Your task to perform on an android device: turn off notifications settings in the gmail app Image 0: 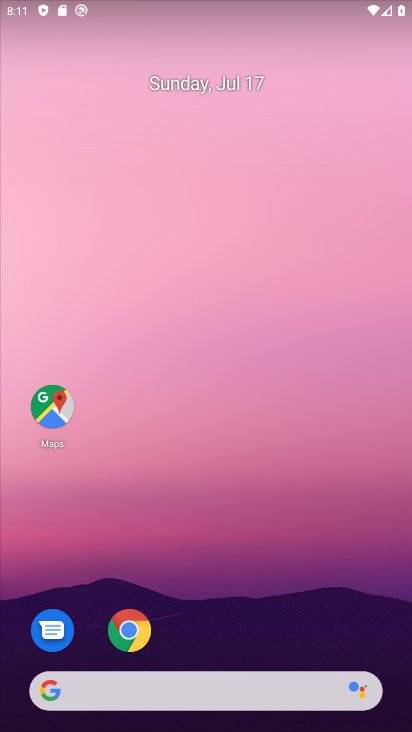
Step 0: drag from (357, 611) to (376, 99)
Your task to perform on an android device: turn off notifications settings in the gmail app Image 1: 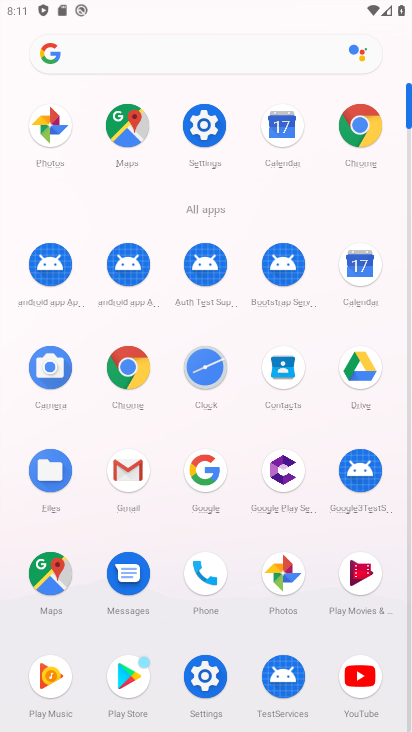
Step 1: click (131, 467)
Your task to perform on an android device: turn off notifications settings in the gmail app Image 2: 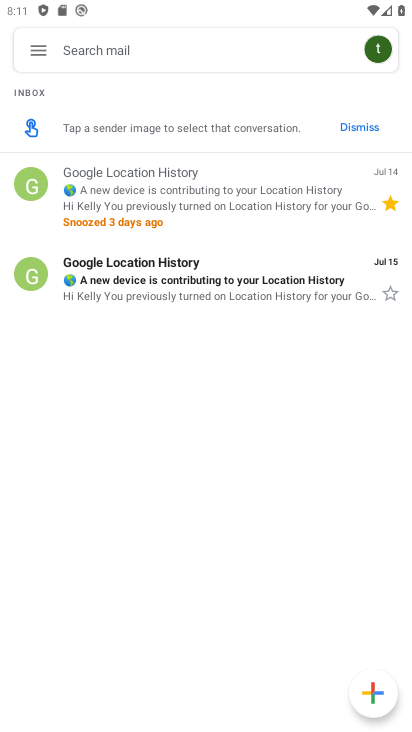
Step 2: click (38, 53)
Your task to perform on an android device: turn off notifications settings in the gmail app Image 3: 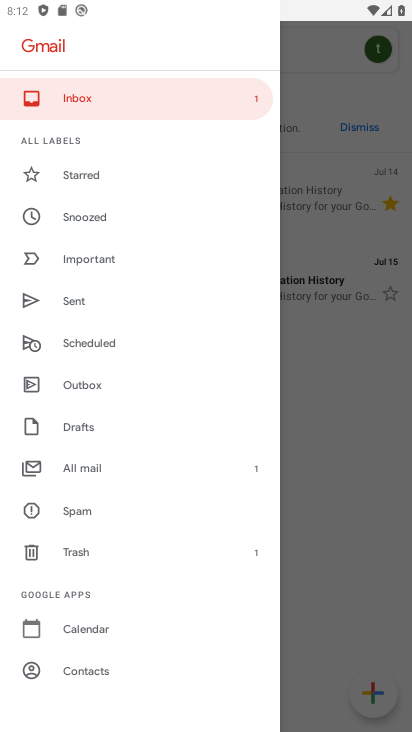
Step 3: drag from (209, 379) to (215, 322)
Your task to perform on an android device: turn off notifications settings in the gmail app Image 4: 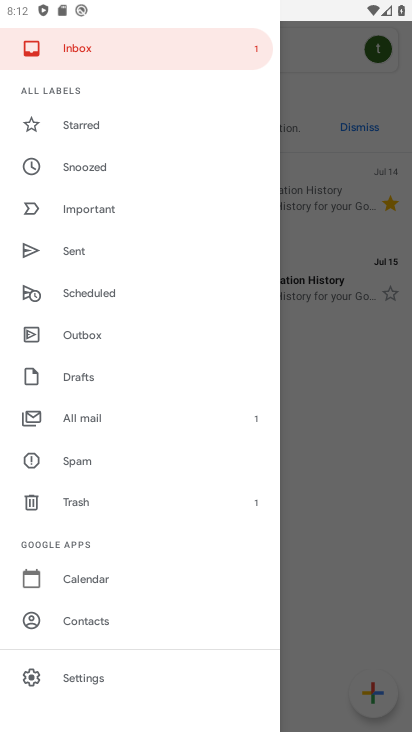
Step 4: drag from (222, 448) to (214, 318)
Your task to perform on an android device: turn off notifications settings in the gmail app Image 5: 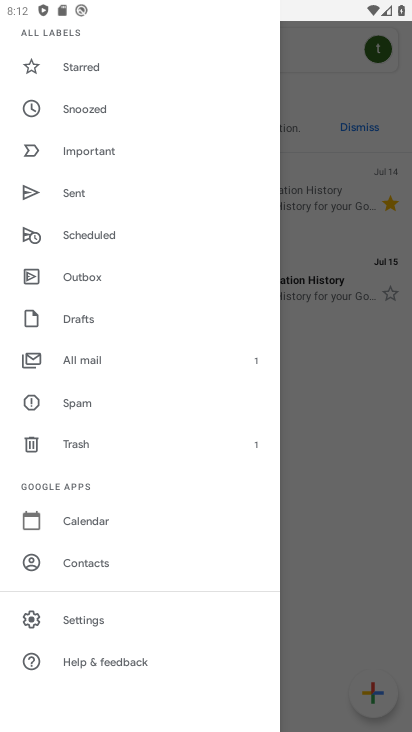
Step 5: click (123, 617)
Your task to perform on an android device: turn off notifications settings in the gmail app Image 6: 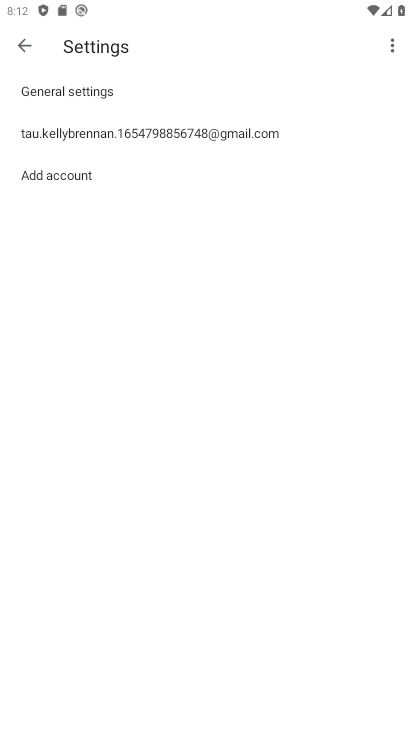
Step 6: click (277, 126)
Your task to perform on an android device: turn off notifications settings in the gmail app Image 7: 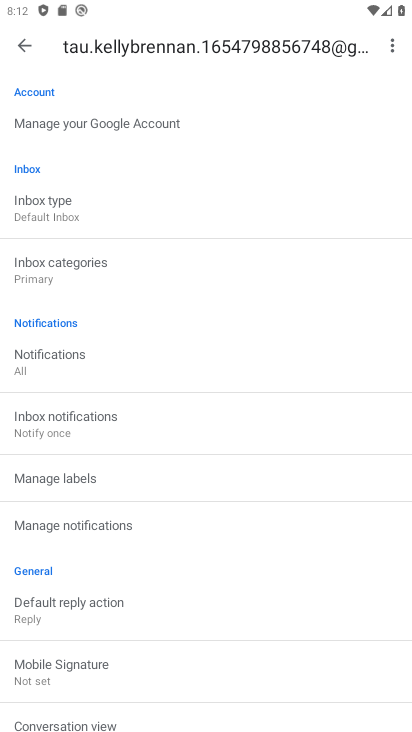
Step 7: drag from (275, 398) to (279, 333)
Your task to perform on an android device: turn off notifications settings in the gmail app Image 8: 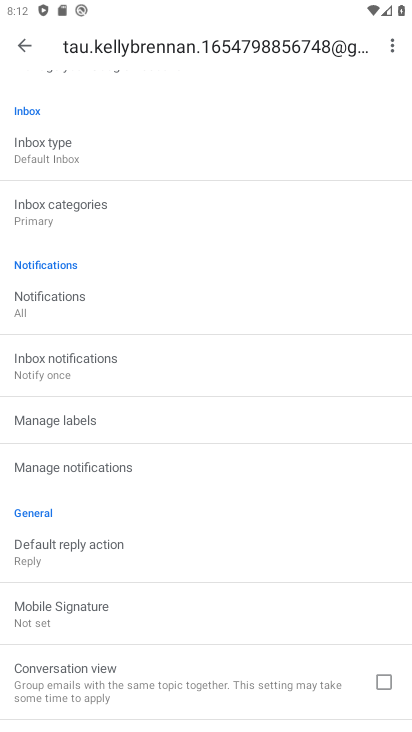
Step 8: drag from (293, 428) to (290, 357)
Your task to perform on an android device: turn off notifications settings in the gmail app Image 9: 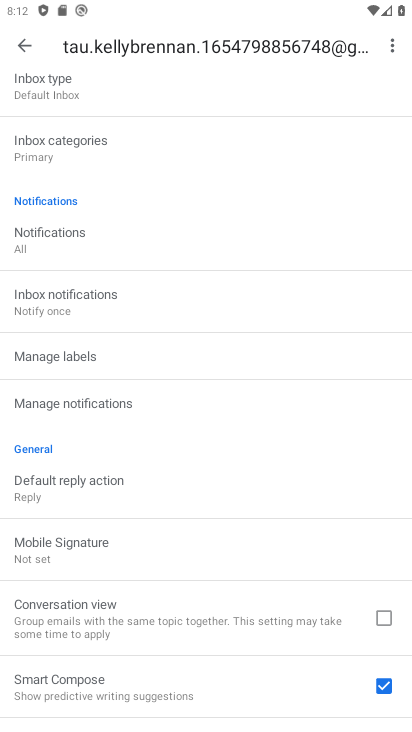
Step 9: drag from (294, 444) to (298, 370)
Your task to perform on an android device: turn off notifications settings in the gmail app Image 10: 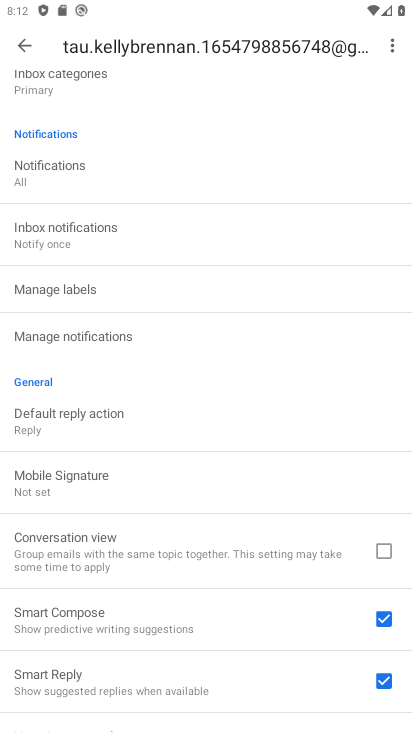
Step 10: drag from (288, 458) to (277, 360)
Your task to perform on an android device: turn off notifications settings in the gmail app Image 11: 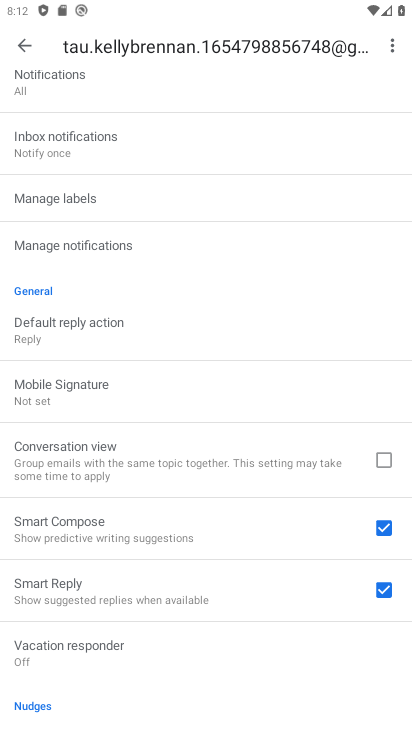
Step 11: drag from (266, 486) to (260, 407)
Your task to perform on an android device: turn off notifications settings in the gmail app Image 12: 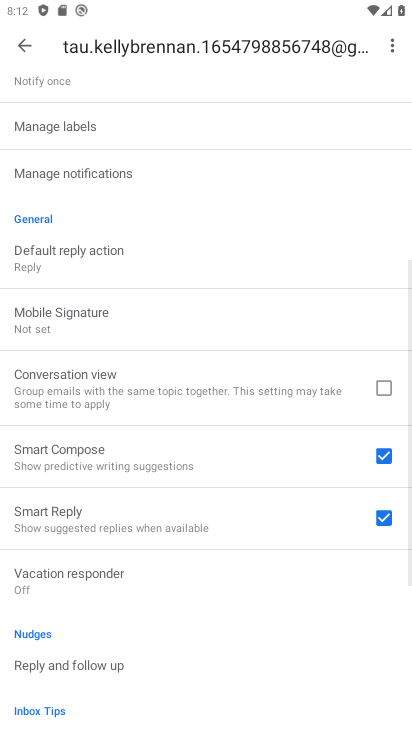
Step 12: drag from (267, 505) to (267, 404)
Your task to perform on an android device: turn off notifications settings in the gmail app Image 13: 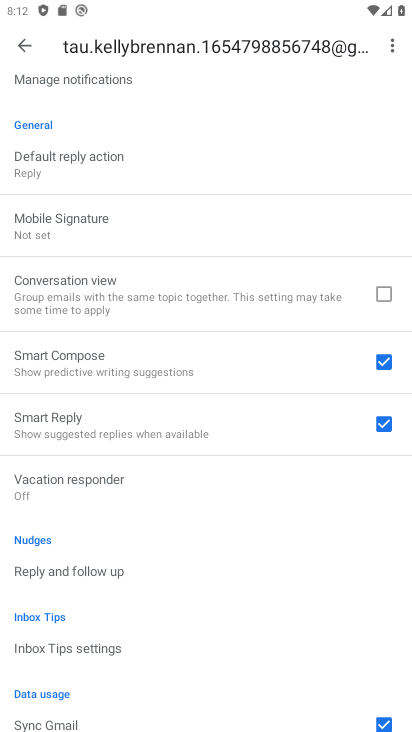
Step 13: drag from (260, 511) to (248, 383)
Your task to perform on an android device: turn off notifications settings in the gmail app Image 14: 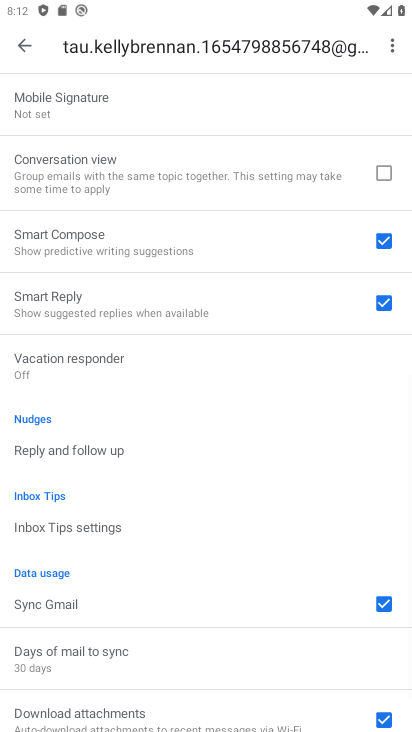
Step 14: drag from (262, 510) to (255, 391)
Your task to perform on an android device: turn off notifications settings in the gmail app Image 15: 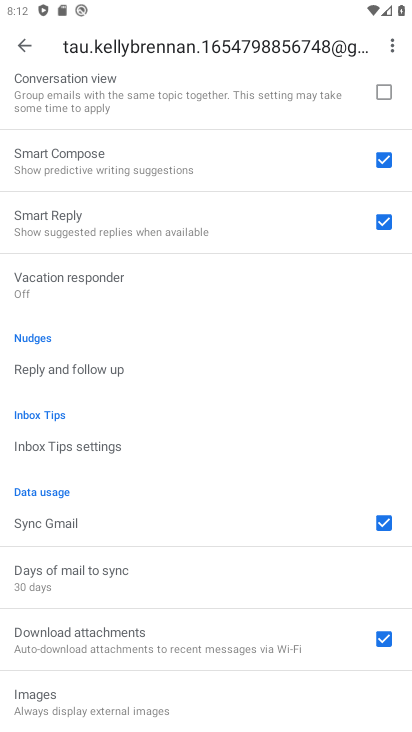
Step 15: drag from (275, 287) to (271, 388)
Your task to perform on an android device: turn off notifications settings in the gmail app Image 16: 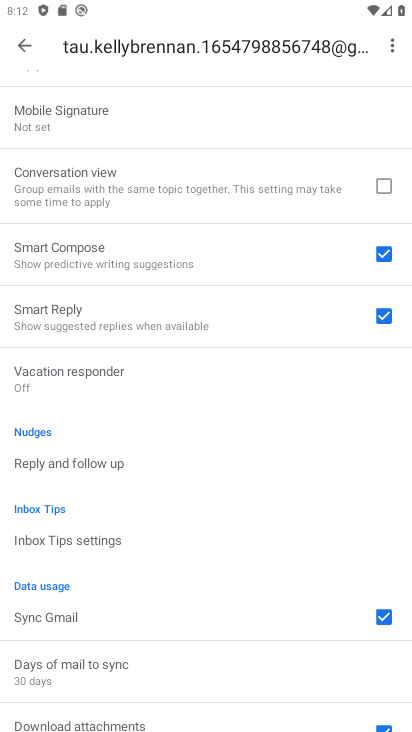
Step 16: drag from (261, 261) to (260, 353)
Your task to perform on an android device: turn off notifications settings in the gmail app Image 17: 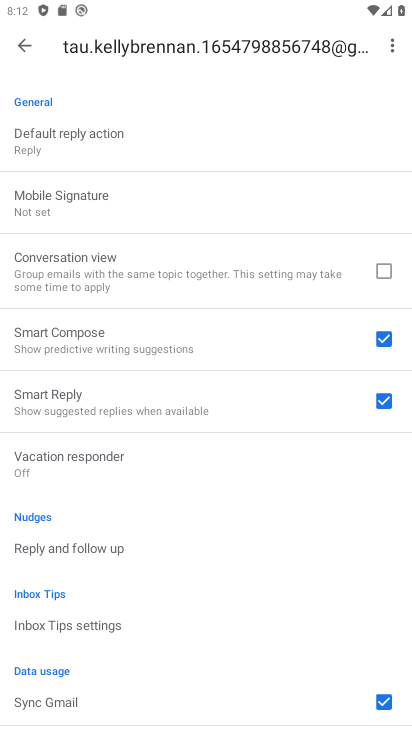
Step 17: drag from (259, 247) to (262, 337)
Your task to perform on an android device: turn off notifications settings in the gmail app Image 18: 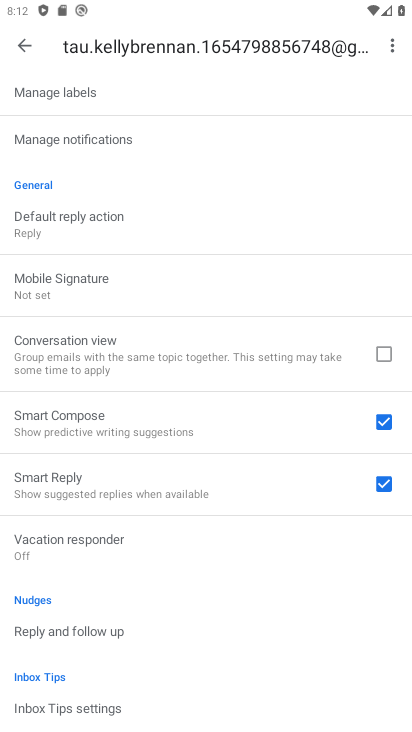
Step 18: drag from (262, 256) to (261, 343)
Your task to perform on an android device: turn off notifications settings in the gmail app Image 19: 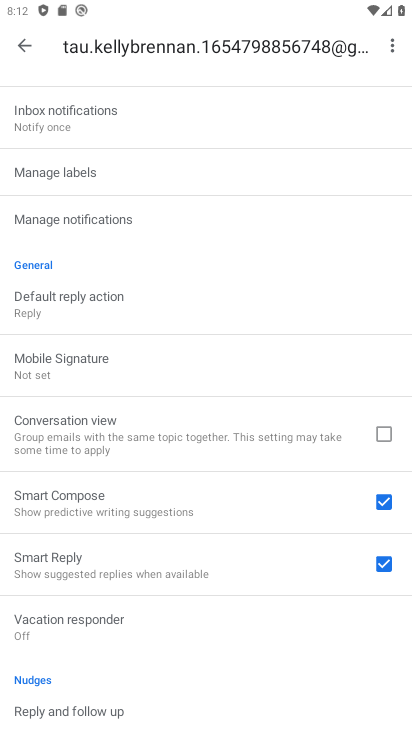
Step 19: drag from (261, 239) to (250, 396)
Your task to perform on an android device: turn off notifications settings in the gmail app Image 20: 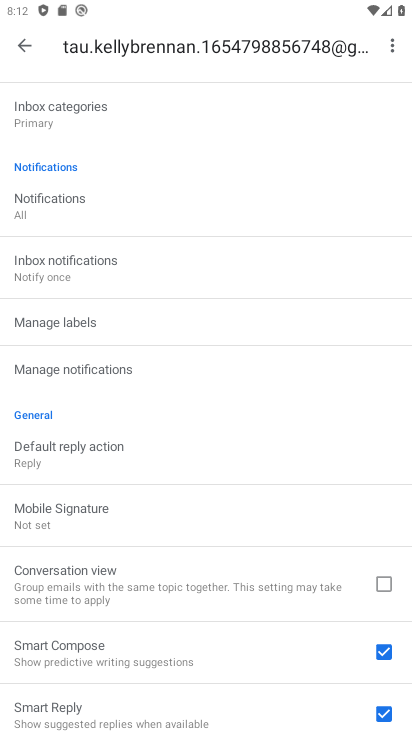
Step 20: click (163, 376)
Your task to perform on an android device: turn off notifications settings in the gmail app Image 21: 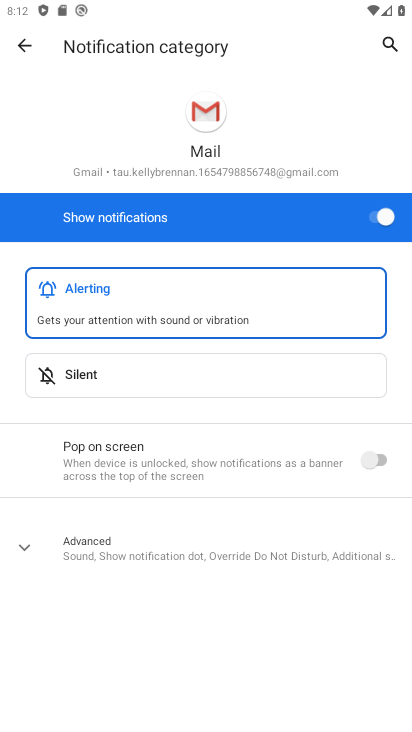
Step 21: click (376, 223)
Your task to perform on an android device: turn off notifications settings in the gmail app Image 22: 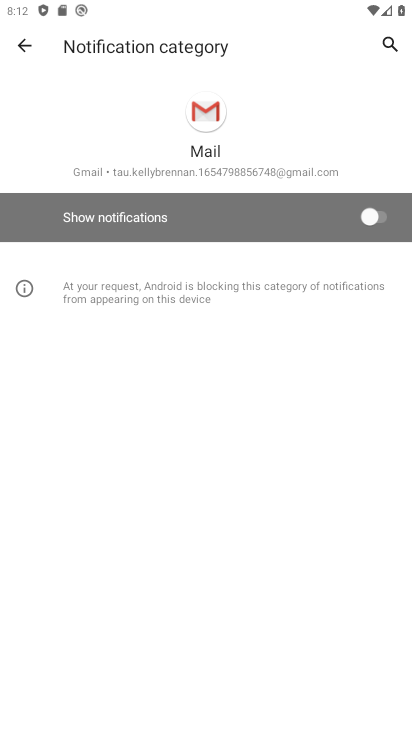
Step 22: task complete